Your task to perform on an android device: Set the phone to "Do not disturb". Image 0: 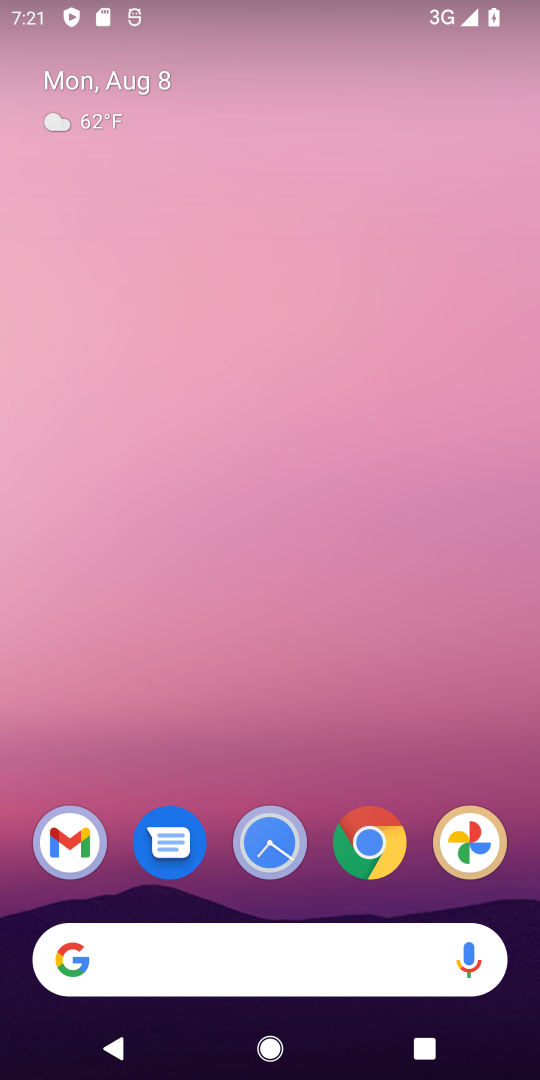
Step 0: drag from (340, 1) to (265, 947)
Your task to perform on an android device: Set the phone to "Do not disturb". Image 1: 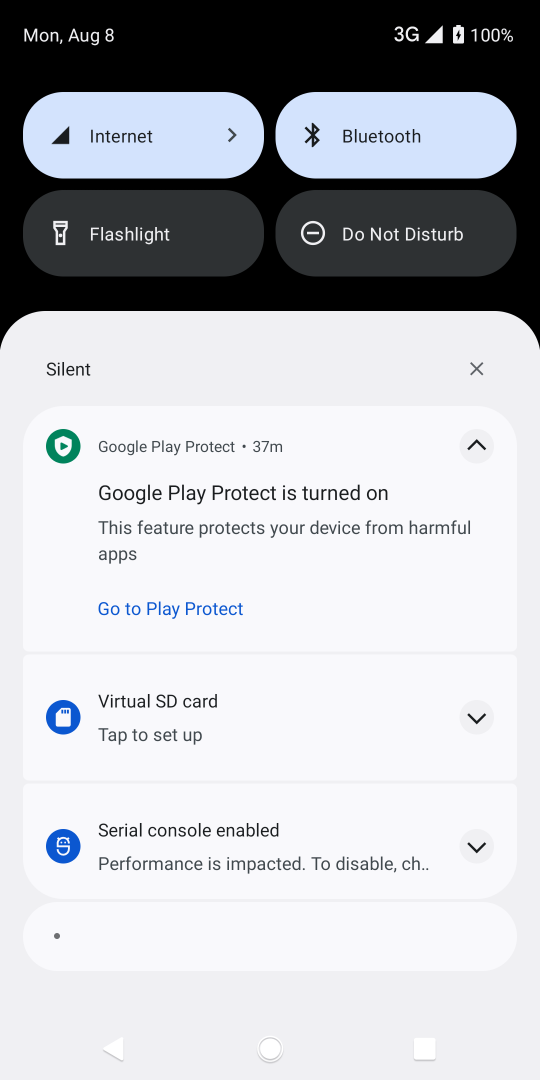
Step 1: click (386, 228)
Your task to perform on an android device: Set the phone to "Do not disturb". Image 2: 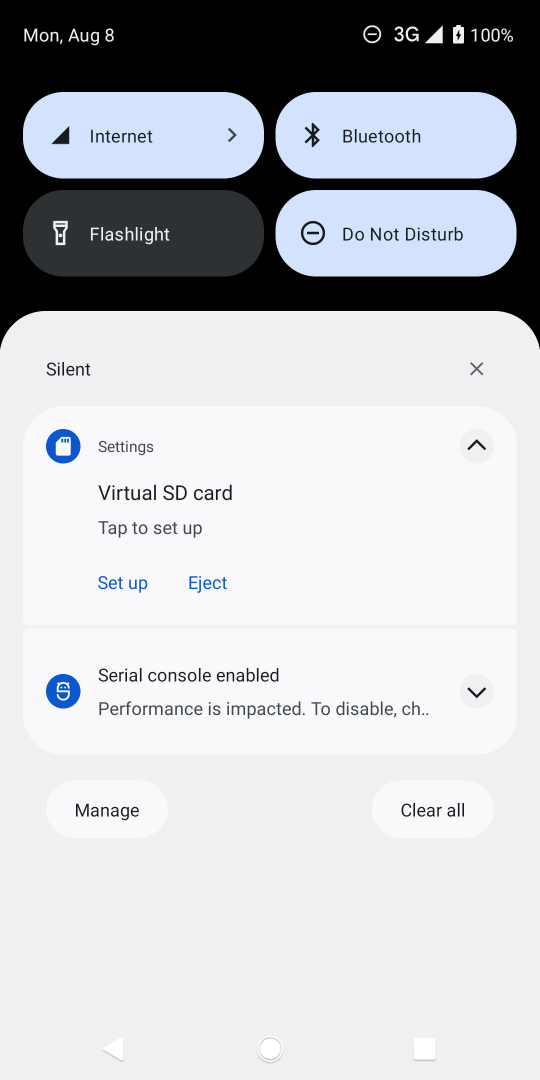
Step 2: task complete